Your task to perform on an android device: What's the weather today? Image 0: 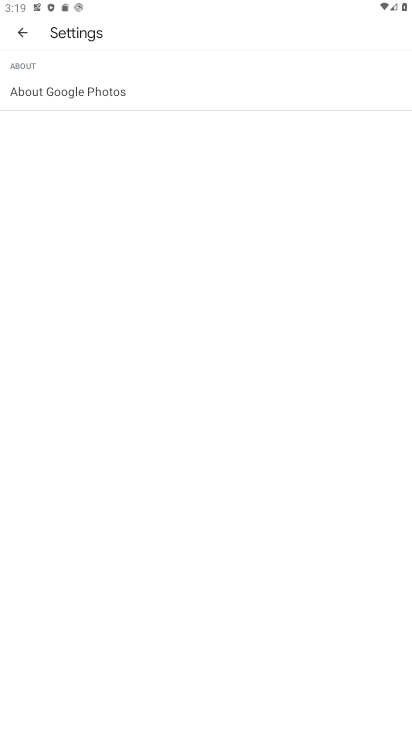
Step 0: press home button
Your task to perform on an android device: What's the weather today? Image 1: 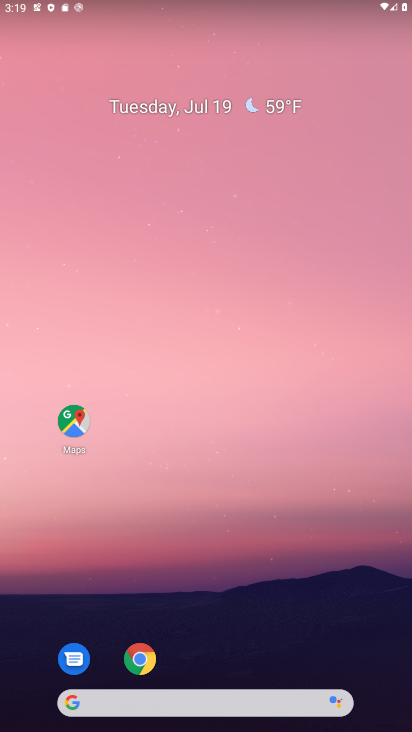
Step 1: drag from (183, 711) to (280, 228)
Your task to perform on an android device: What's the weather today? Image 2: 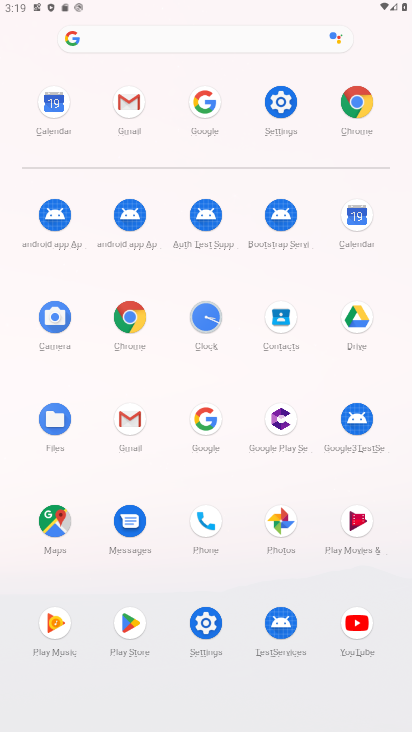
Step 2: click (205, 102)
Your task to perform on an android device: What's the weather today? Image 3: 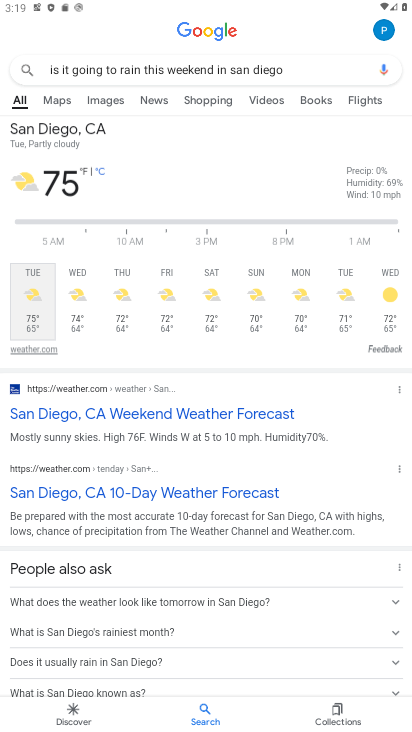
Step 3: task complete